Your task to perform on an android device: Check the news Image 0: 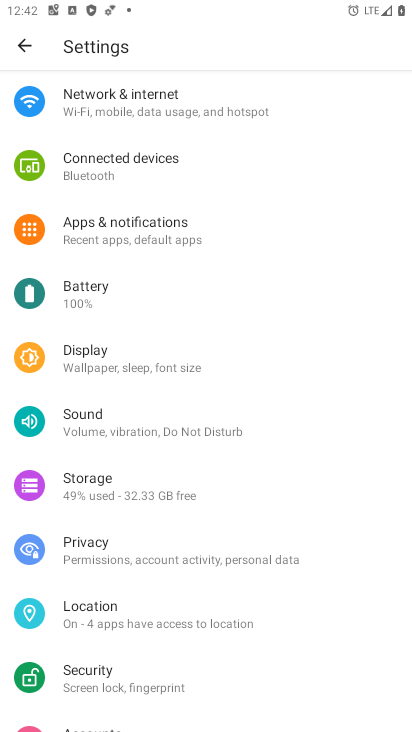
Step 0: press home button
Your task to perform on an android device: Check the news Image 1: 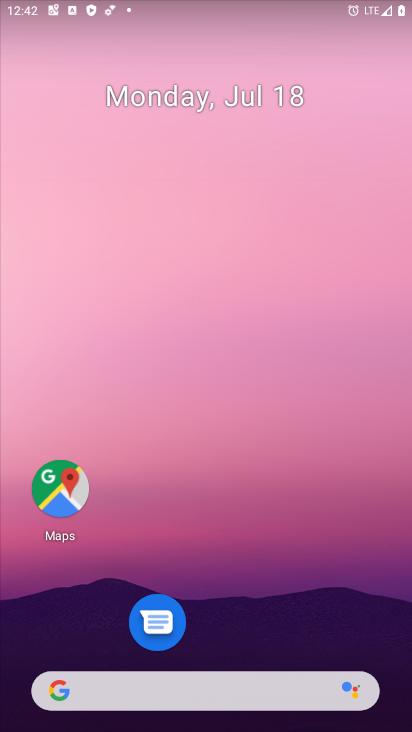
Step 1: click (244, 699)
Your task to perform on an android device: Check the news Image 2: 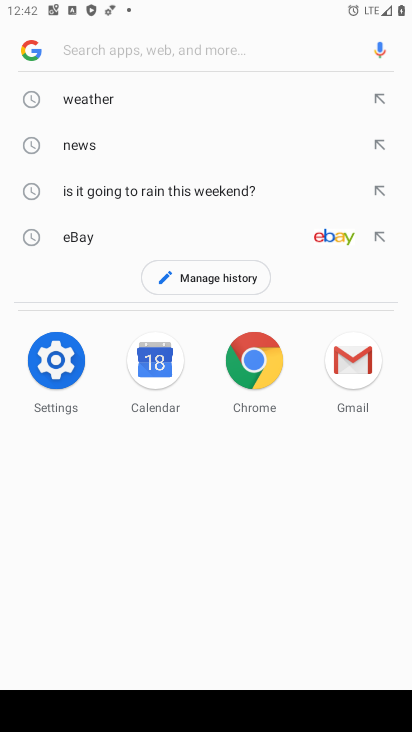
Step 2: click (106, 148)
Your task to perform on an android device: Check the news Image 3: 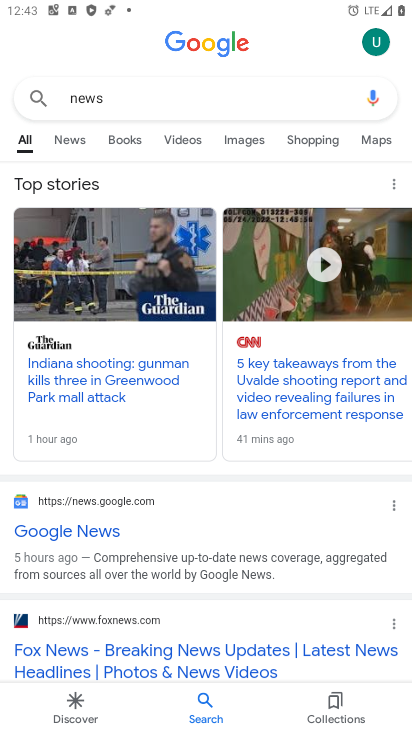
Step 3: task complete